Your task to perform on an android device: What's the weather? Image 0: 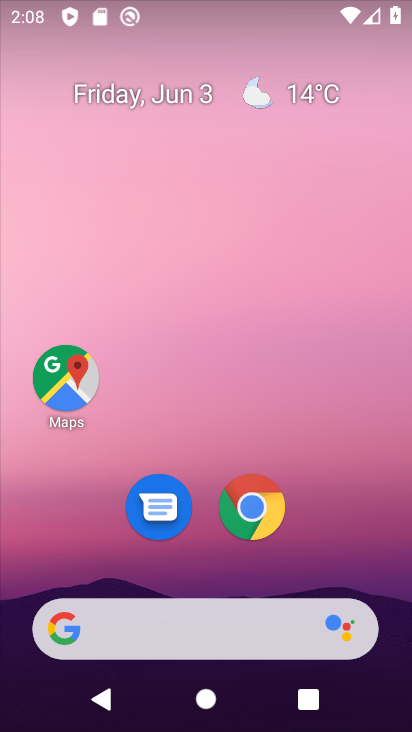
Step 0: drag from (219, 552) to (202, 51)
Your task to perform on an android device: What's the weather? Image 1: 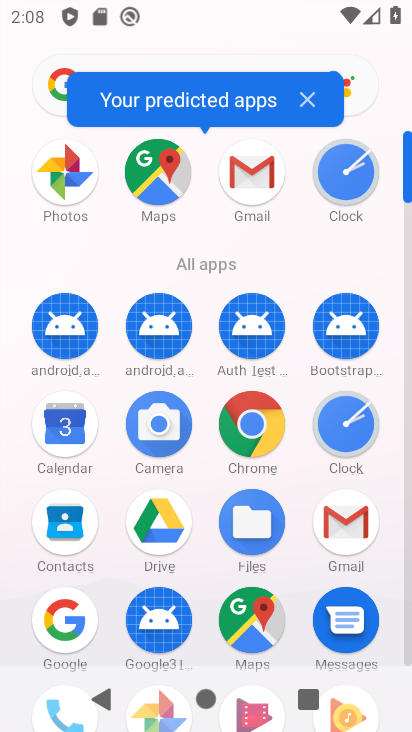
Step 1: drag from (199, 487) to (166, 149)
Your task to perform on an android device: What's the weather? Image 2: 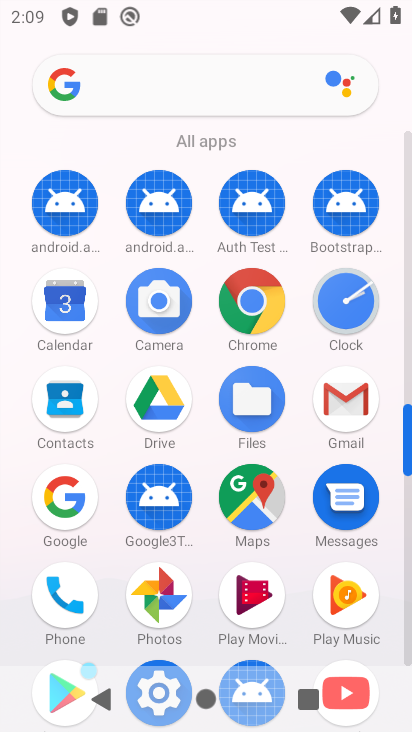
Step 2: click (66, 497)
Your task to perform on an android device: What's the weather? Image 3: 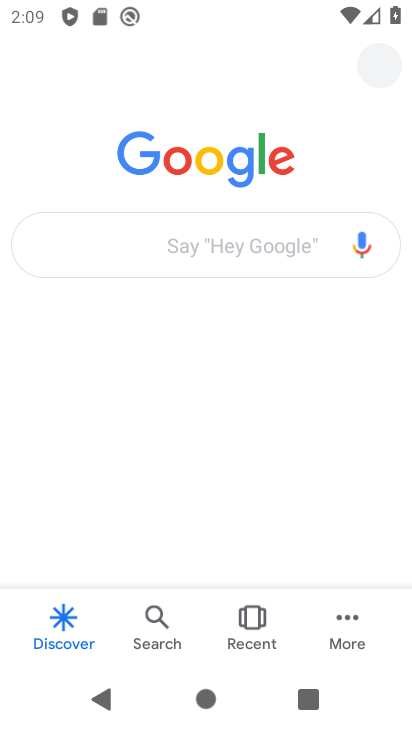
Step 3: click (204, 240)
Your task to perform on an android device: What's the weather? Image 4: 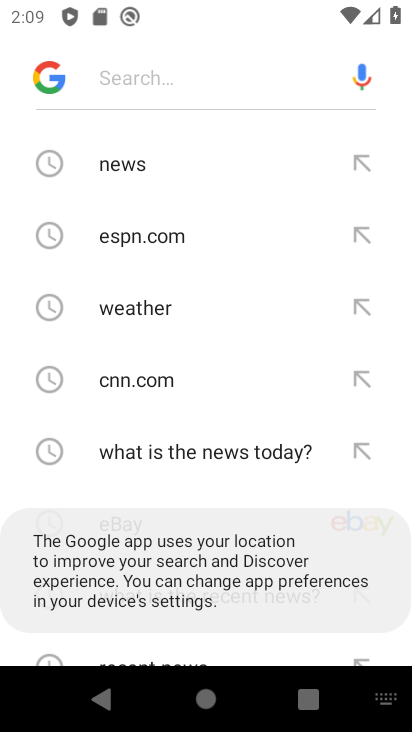
Step 4: click (169, 306)
Your task to perform on an android device: What's the weather? Image 5: 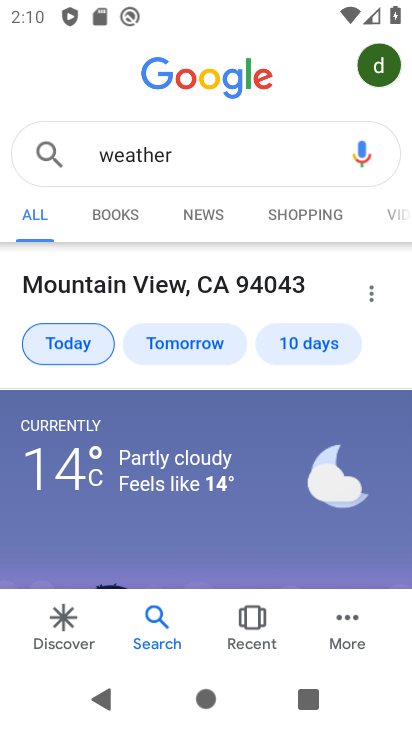
Step 5: task complete